Your task to perform on an android device: refresh tabs in the chrome app Image 0: 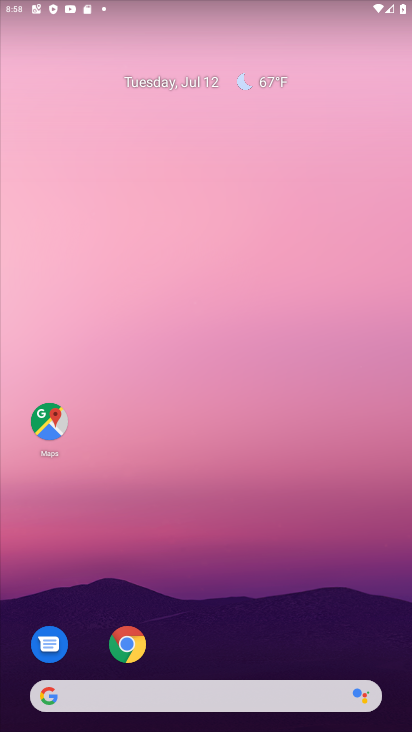
Step 0: click (312, 201)
Your task to perform on an android device: refresh tabs in the chrome app Image 1: 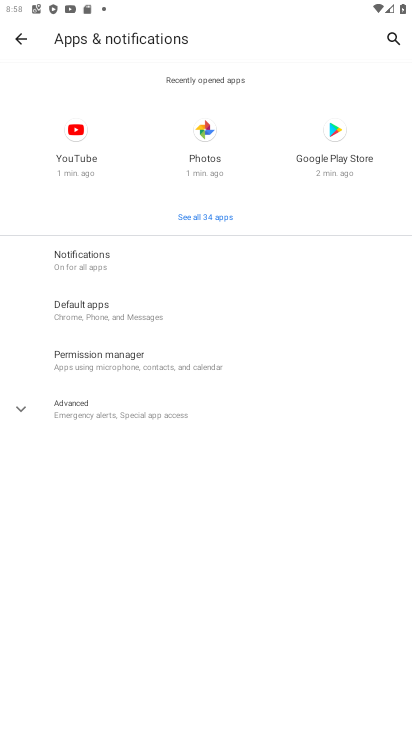
Step 1: press home button
Your task to perform on an android device: refresh tabs in the chrome app Image 2: 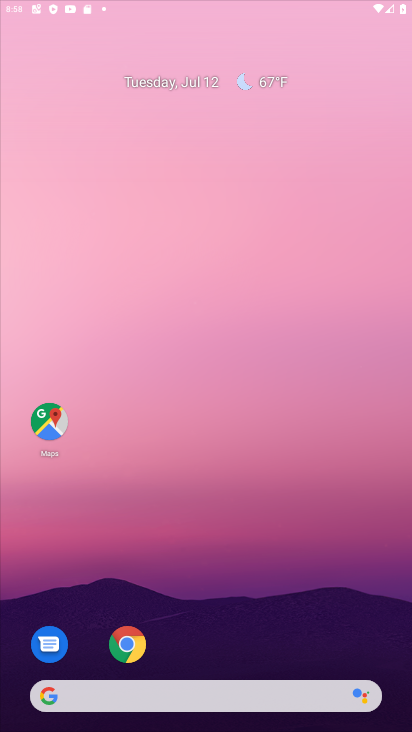
Step 2: drag from (107, 530) to (167, 124)
Your task to perform on an android device: refresh tabs in the chrome app Image 3: 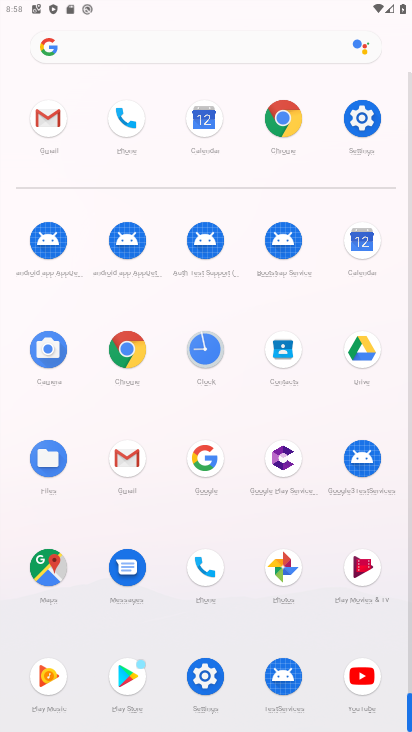
Step 3: click (126, 355)
Your task to perform on an android device: refresh tabs in the chrome app Image 4: 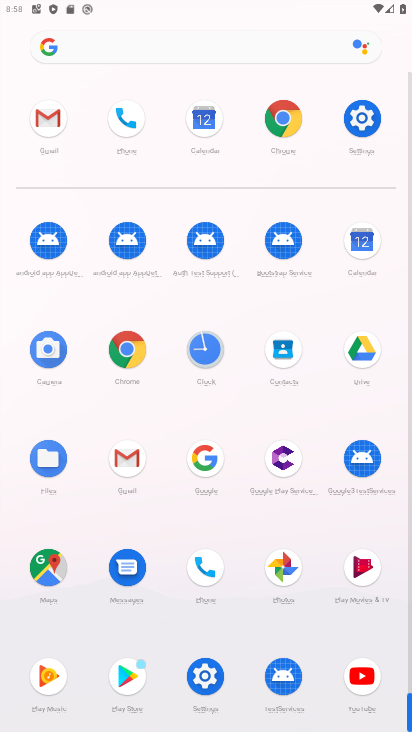
Step 4: click (125, 356)
Your task to perform on an android device: refresh tabs in the chrome app Image 5: 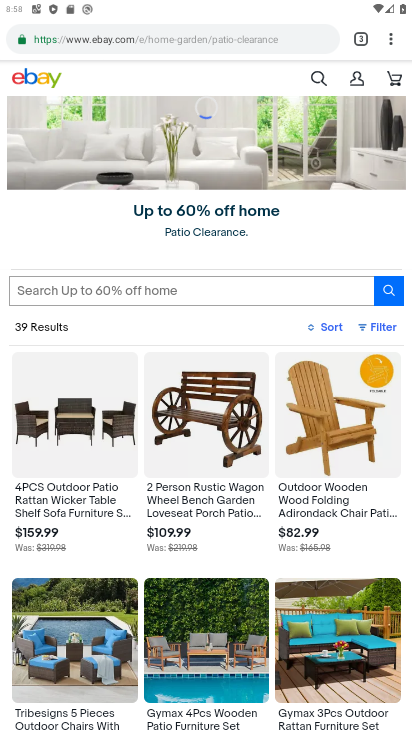
Step 5: drag from (194, 321) to (246, 91)
Your task to perform on an android device: refresh tabs in the chrome app Image 6: 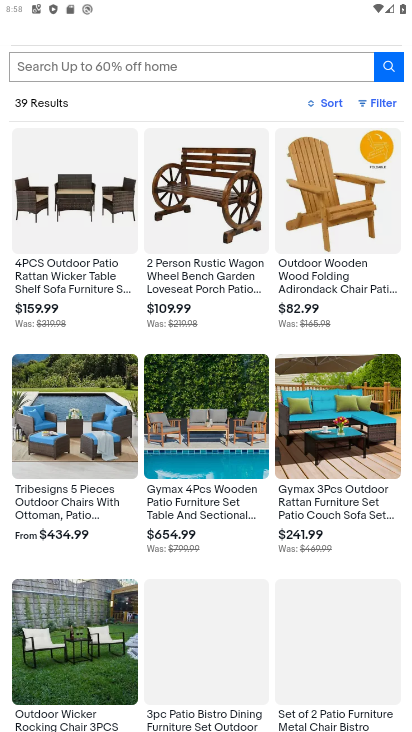
Step 6: drag from (206, 202) to (277, 618)
Your task to perform on an android device: refresh tabs in the chrome app Image 7: 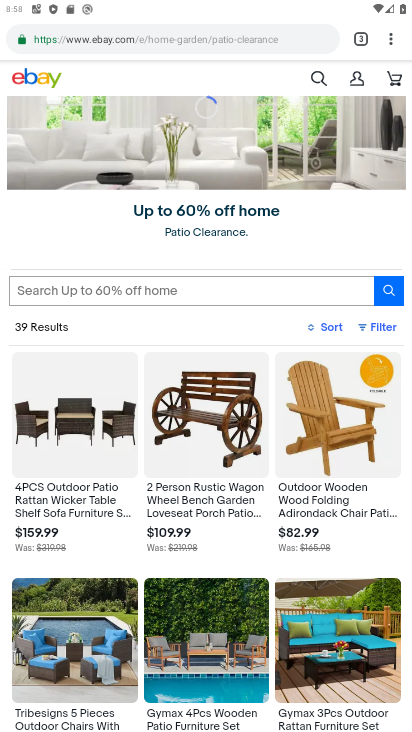
Step 7: click (387, 46)
Your task to perform on an android device: refresh tabs in the chrome app Image 8: 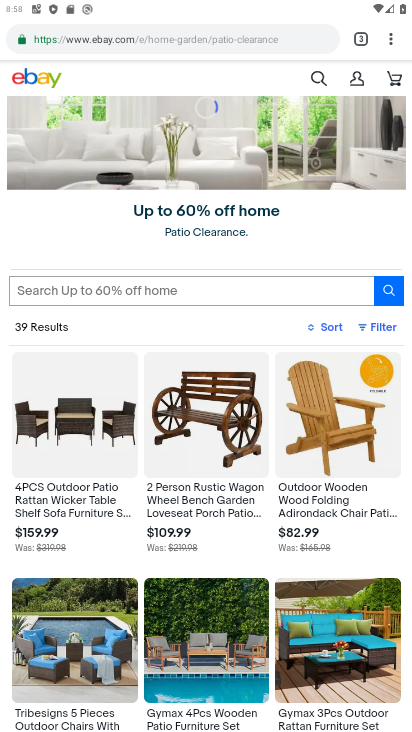
Step 8: task complete